Your task to perform on an android device: Open battery settings Image 0: 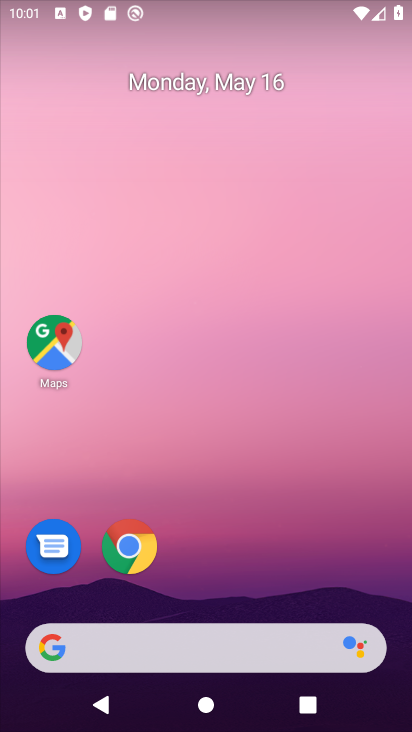
Step 0: drag from (244, 607) to (205, 340)
Your task to perform on an android device: Open battery settings Image 1: 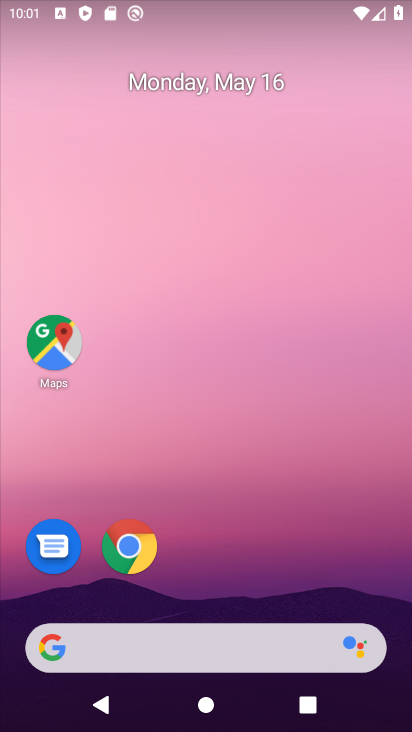
Step 1: drag from (231, 598) to (288, 55)
Your task to perform on an android device: Open battery settings Image 2: 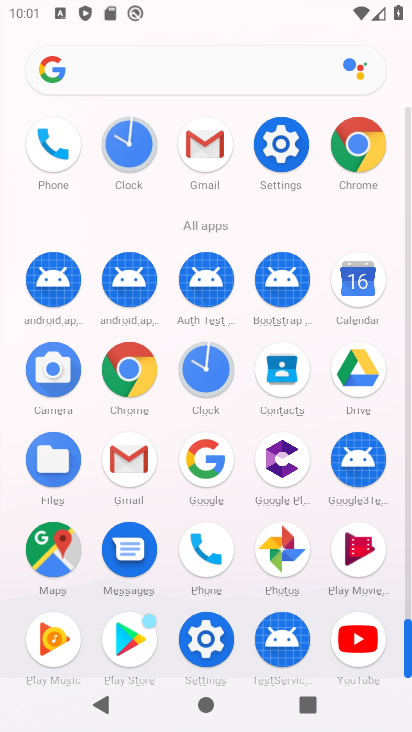
Step 2: click (275, 163)
Your task to perform on an android device: Open battery settings Image 3: 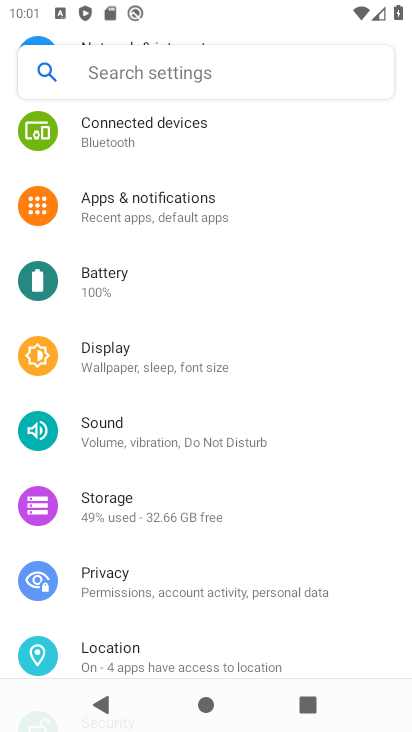
Step 3: click (187, 292)
Your task to perform on an android device: Open battery settings Image 4: 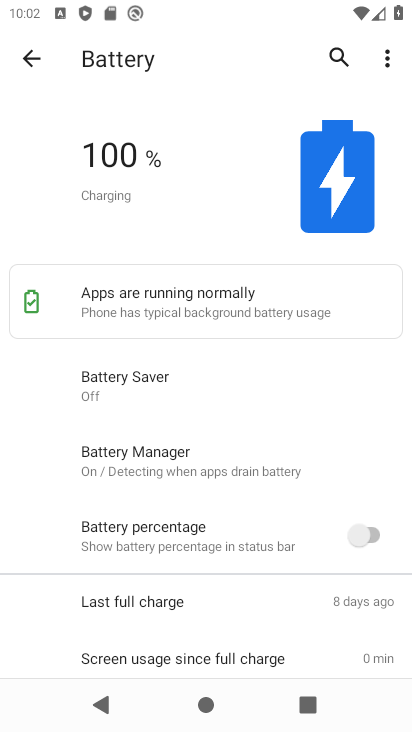
Step 4: task complete